Your task to perform on an android device: turn off notifications in google photos Image 0: 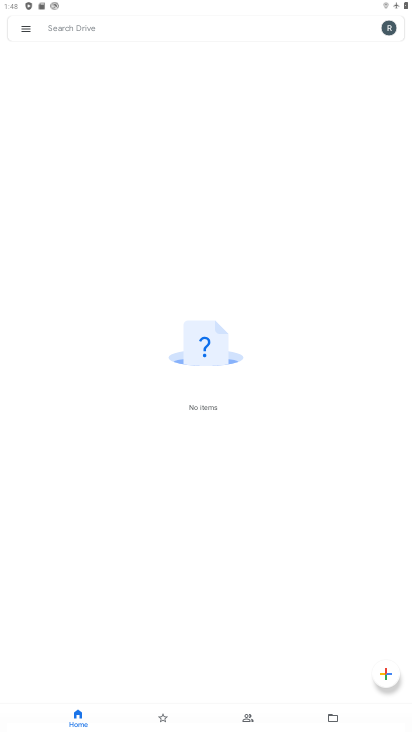
Step 0: press home button
Your task to perform on an android device: turn off notifications in google photos Image 1: 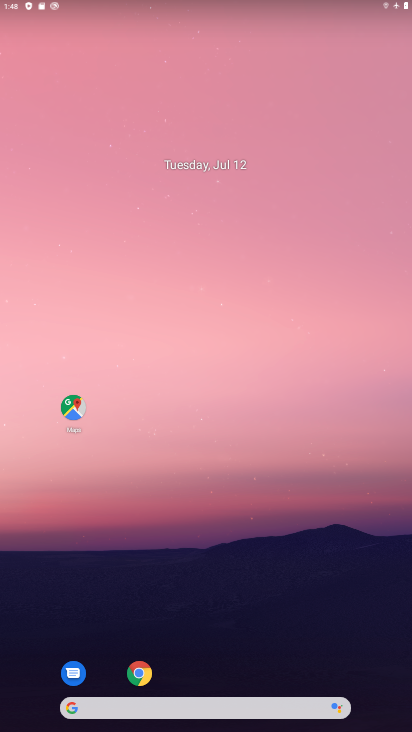
Step 1: drag from (171, 683) to (242, 301)
Your task to perform on an android device: turn off notifications in google photos Image 2: 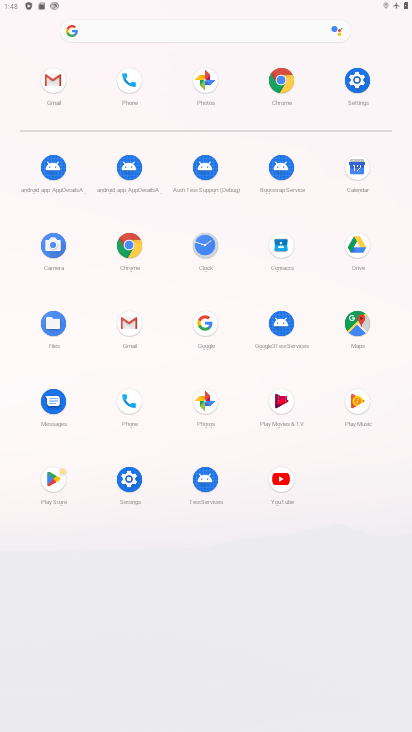
Step 2: click (199, 406)
Your task to perform on an android device: turn off notifications in google photos Image 3: 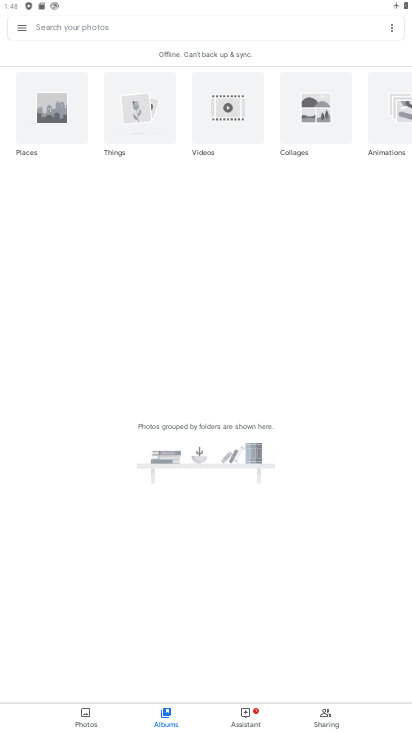
Step 3: click (22, 25)
Your task to perform on an android device: turn off notifications in google photos Image 4: 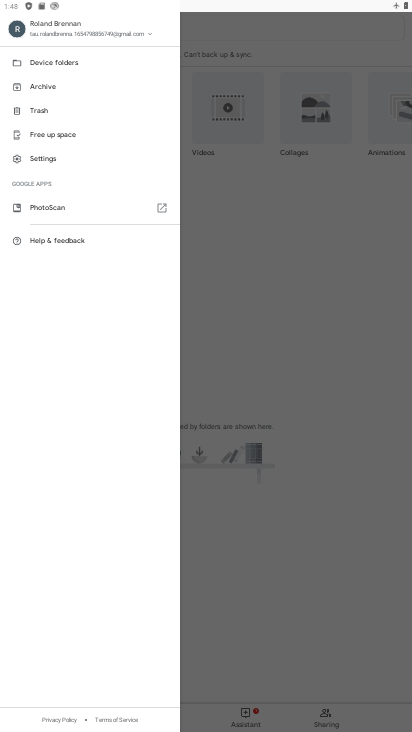
Step 4: click (62, 153)
Your task to perform on an android device: turn off notifications in google photos Image 5: 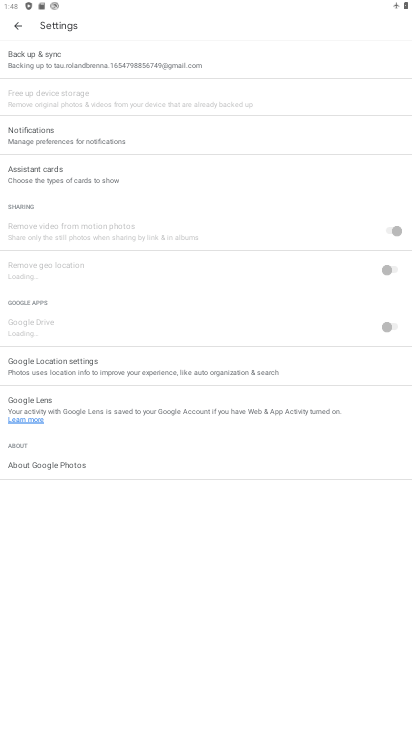
Step 5: click (108, 127)
Your task to perform on an android device: turn off notifications in google photos Image 6: 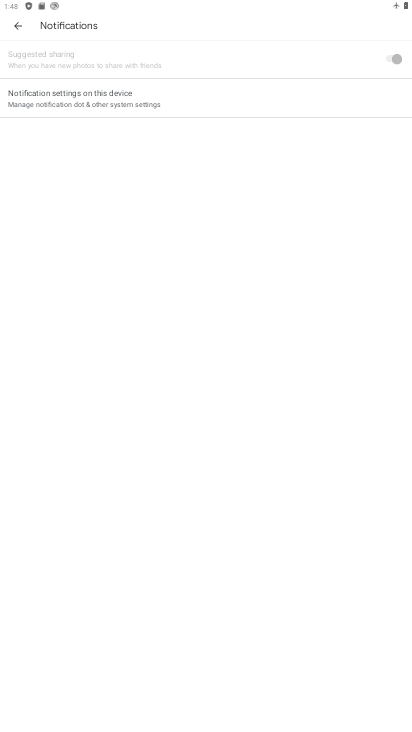
Step 6: click (135, 93)
Your task to perform on an android device: turn off notifications in google photos Image 7: 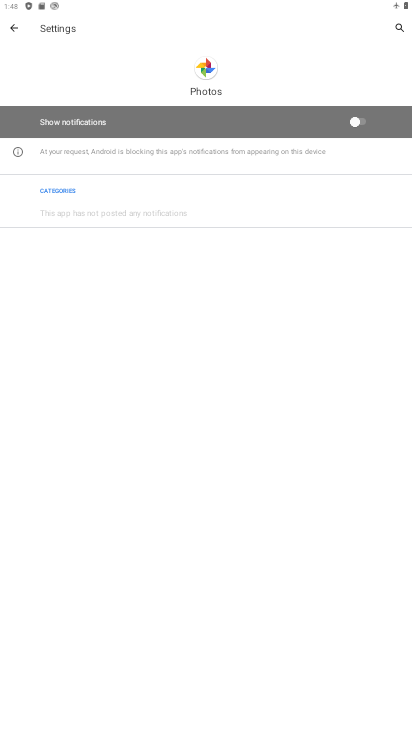
Step 7: task complete